Your task to perform on an android device: Open calendar and show me the first week of next month Image 0: 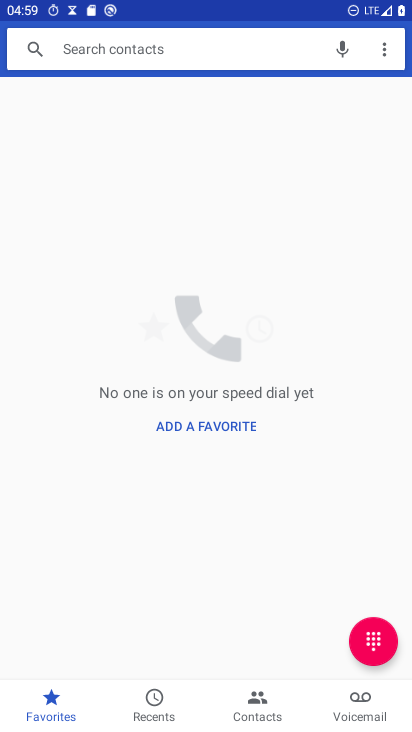
Step 0: press home button
Your task to perform on an android device: Open calendar and show me the first week of next month Image 1: 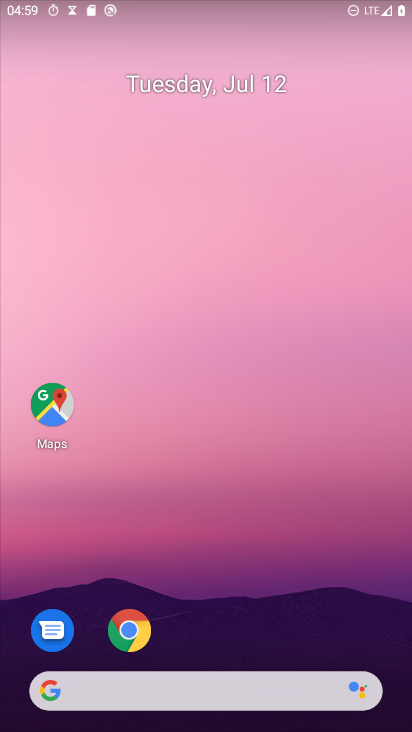
Step 1: drag from (289, 689) to (297, 136)
Your task to perform on an android device: Open calendar and show me the first week of next month Image 2: 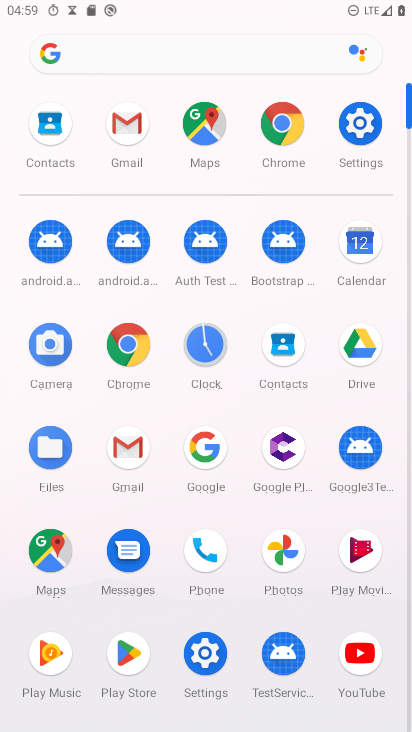
Step 2: click (348, 258)
Your task to perform on an android device: Open calendar and show me the first week of next month Image 3: 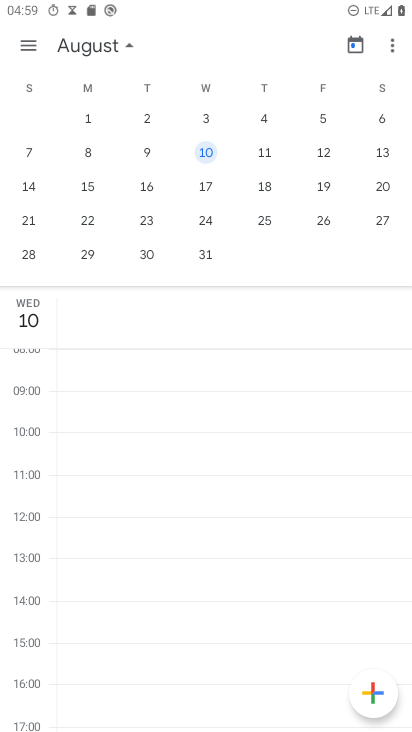
Step 3: click (203, 113)
Your task to perform on an android device: Open calendar and show me the first week of next month Image 4: 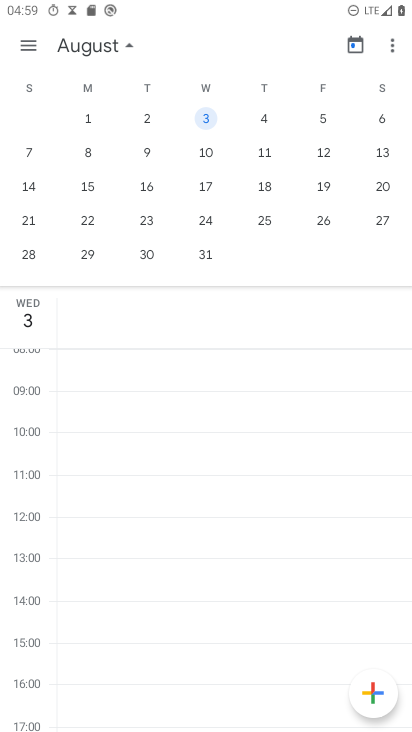
Step 4: click (28, 42)
Your task to perform on an android device: Open calendar and show me the first week of next month Image 5: 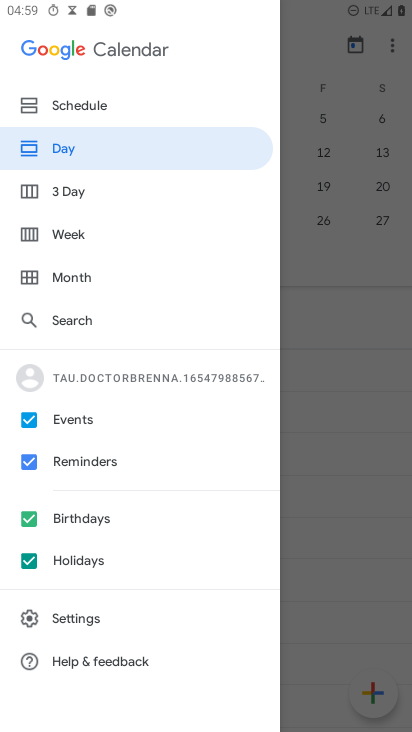
Step 5: click (82, 235)
Your task to perform on an android device: Open calendar and show me the first week of next month Image 6: 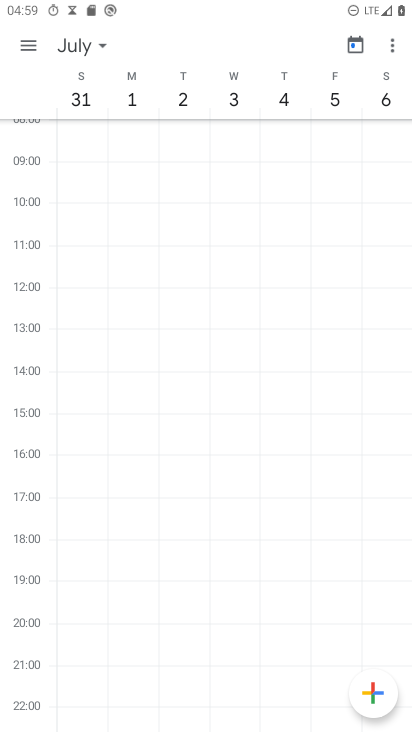
Step 6: task complete